Your task to perform on an android device: See recent photos Image 0: 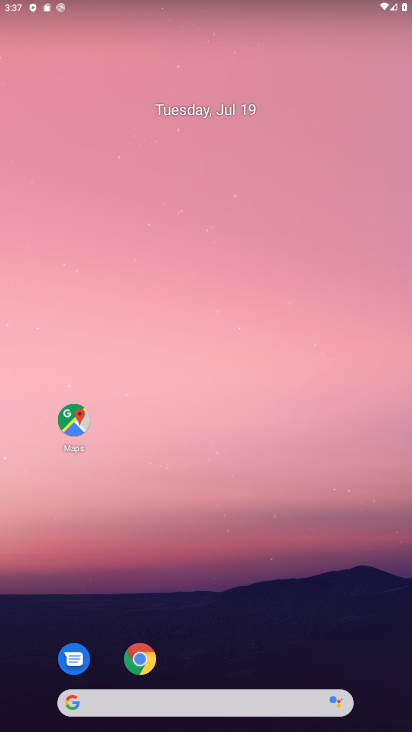
Step 0: drag from (207, 588) to (210, 27)
Your task to perform on an android device: See recent photos Image 1: 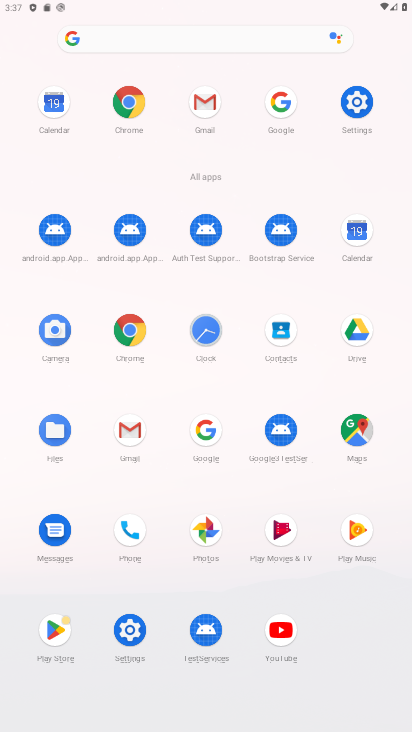
Step 1: click (130, 110)
Your task to perform on an android device: See recent photos Image 2: 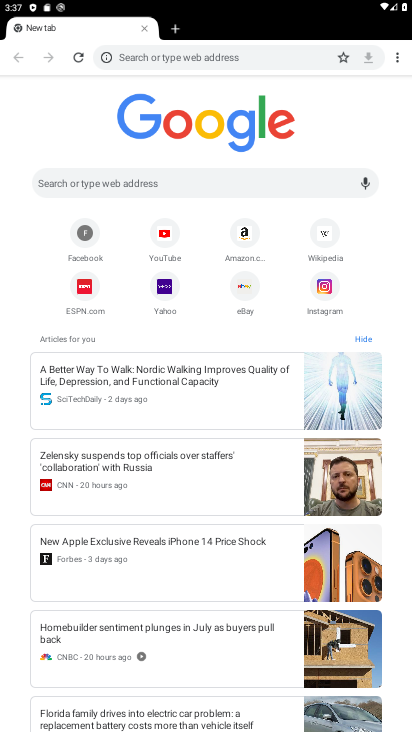
Step 2: press home button
Your task to perform on an android device: See recent photos Image 3: 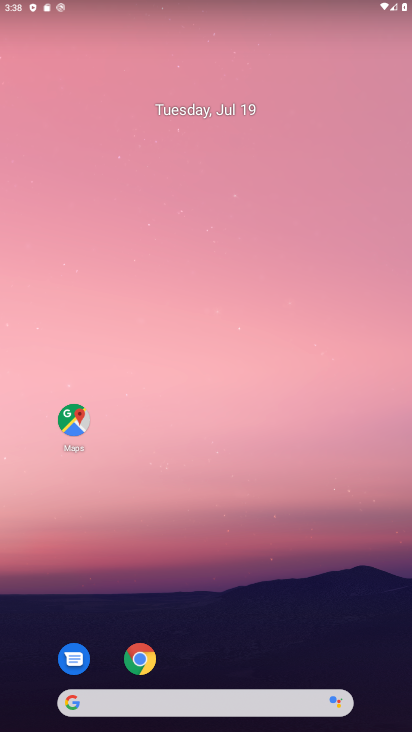
Step 3: drag from (259, 600) to (234, 75)
Your task to perform on an android device: See recent photos Image 4: 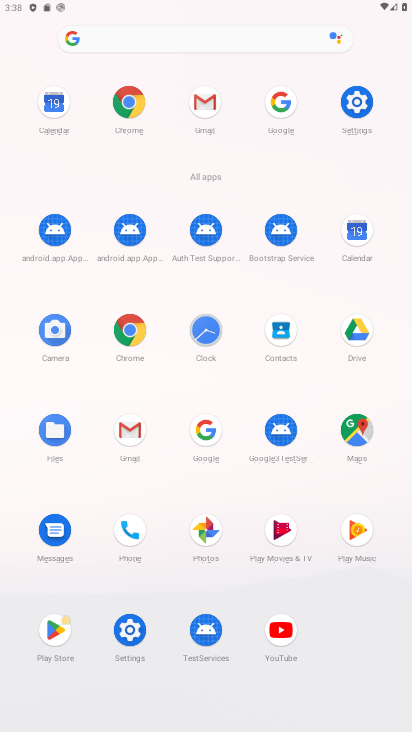
Step 4: click (202, 533)
Your task to perform on an android device: See recent photos Image 5: 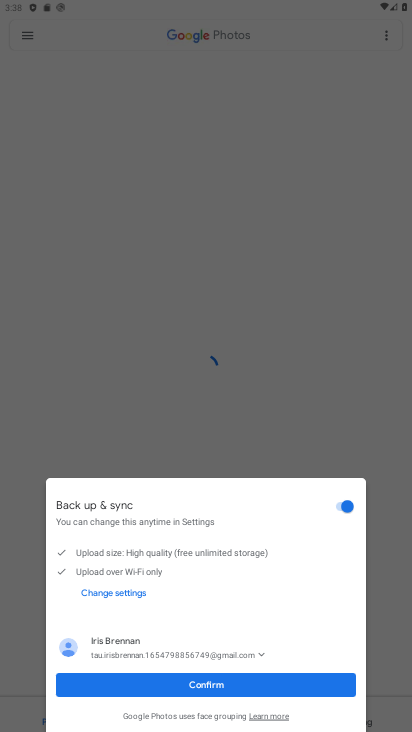
Step 5: click (218, 686)
Your task to perform on an android device: See recent photos Image 6: 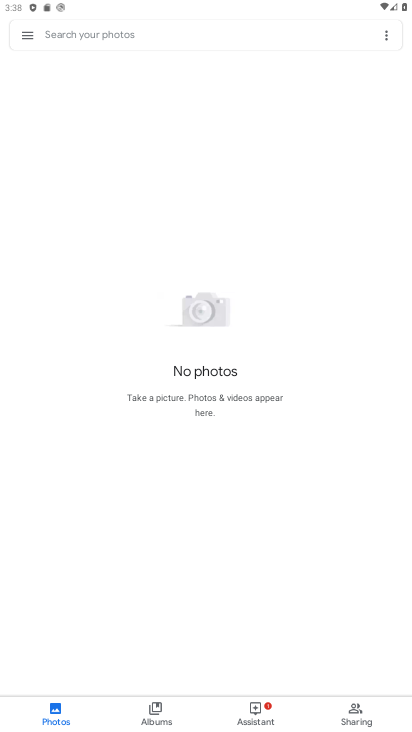
Step 6: task complete